Your task to perform on an android device: Open display settings Image 0: 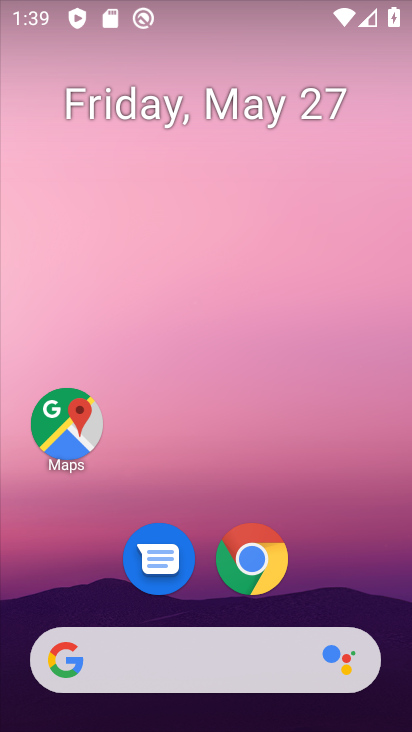
Step 0: drag from (79, 611) to (213, 311)
Your task to perform on an android device: Open display settings Image 1: 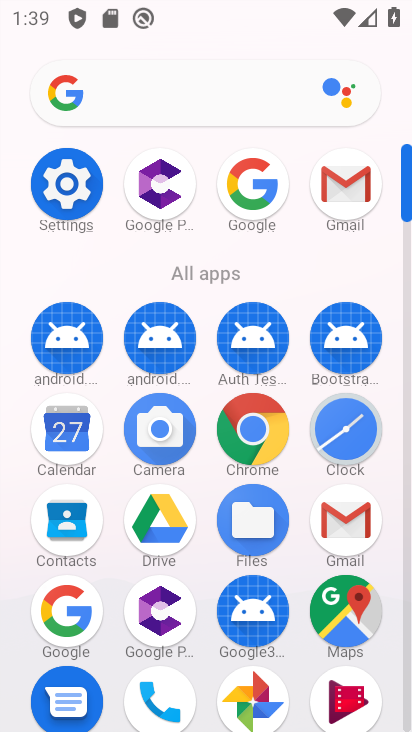
Step 1: drag from (188, 507) to (247, 328)
Your task to perform on an android device: Open display settings Image 2: 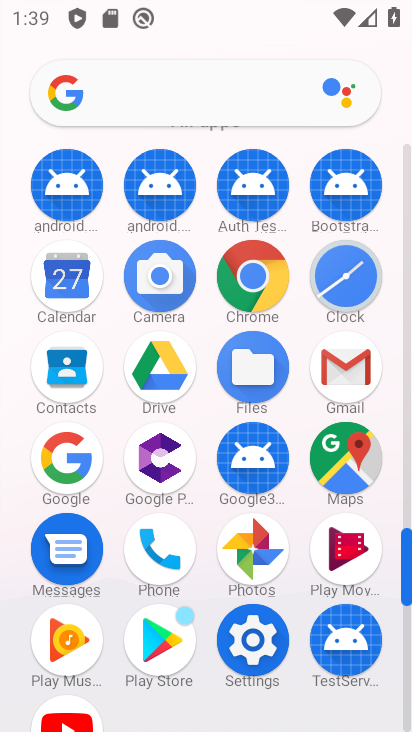
Step 2: click (243, 663)
Your task to perform on an android device: Open display settings Image 3: 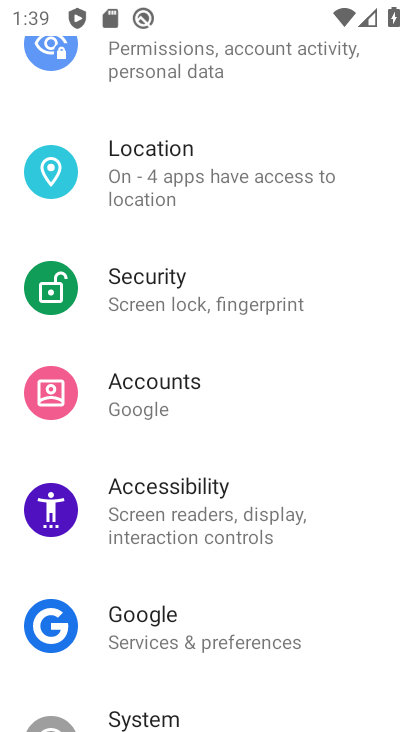
Step 3: drag from (264, 296) to (221, 610)
Your task to perform on an android device: Open display settings Image 4: 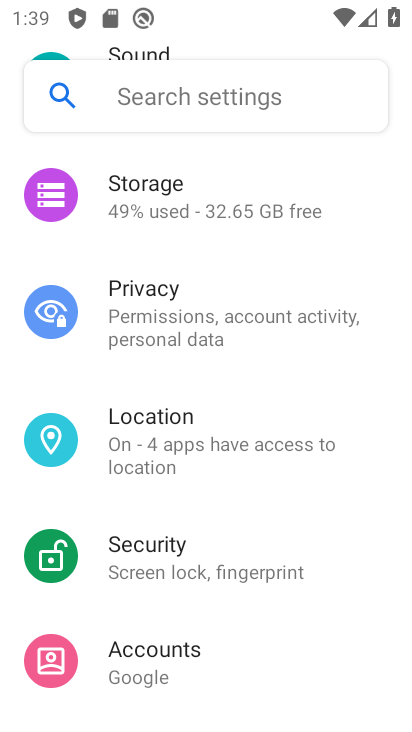
Step 4: drag from (251, 328) to (242, 615)
Your task to perform on an android device: Open display settings Image 5: 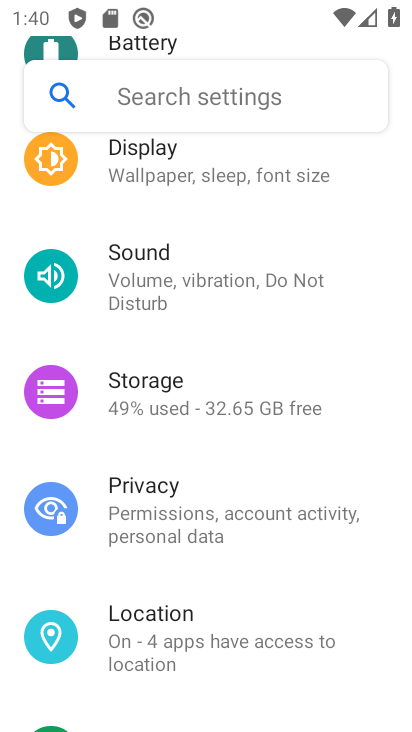
Step 5: click (263, 190)
Your task to perform on an android device: Open display settings Image 6: 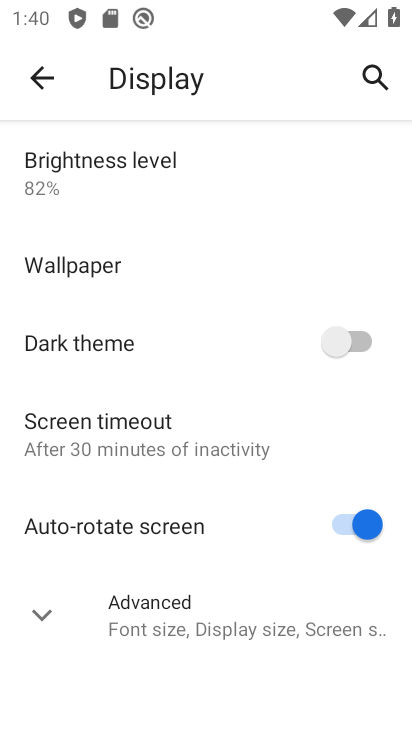
Step 6: click (242, 615)
Your task to perform on an android device: Open display settings Image 7: 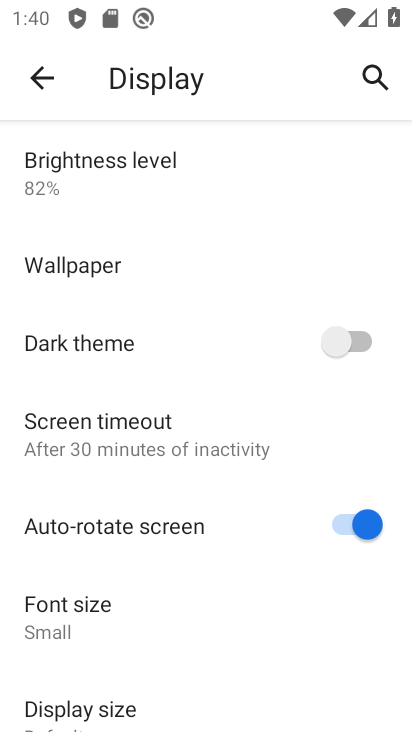
Step 7: task complete